Your task to perform on an android device: Go to calendar. Show me events next week Image 0: 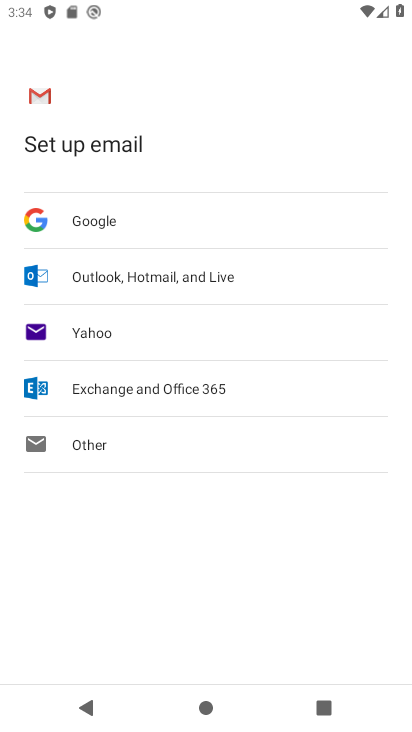
Step 0: press home button
Your task to perform on an android device: Go to calendar. Show me events next week Image 1: 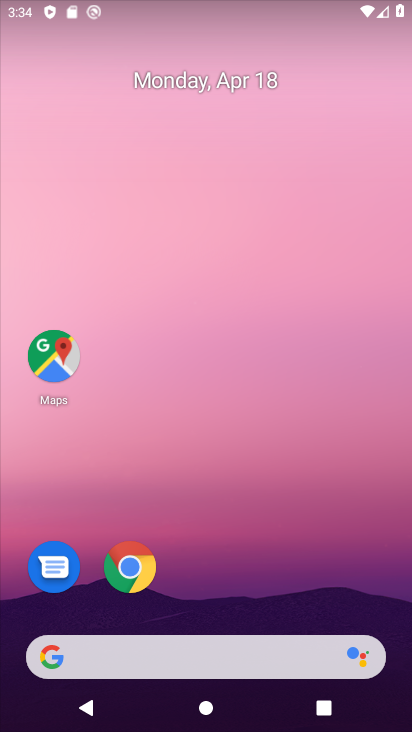
Step 1: drag from (200, 569) to (236, 75)
Your task to perform on an android device: Go to calendar. Show me events next week Image 2: 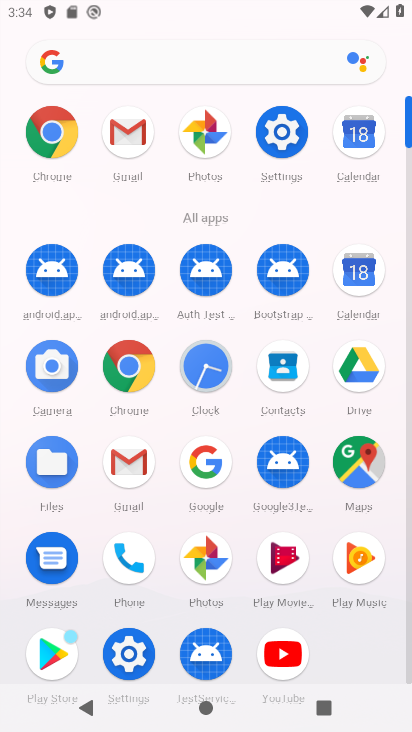
Step 2: click (353, 285)
Your task to perform on an android device: Go to calendar. Show me events next week Image 3: 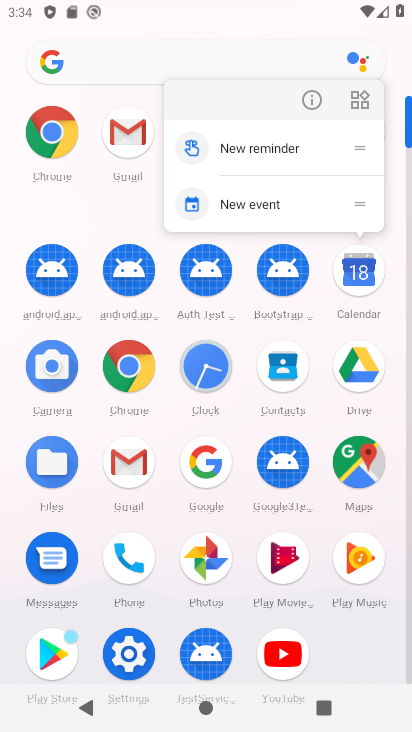
Step 3: click (360, 278)
Your task to perform on an android device: Go to calendar. Show me events next week Image 4: 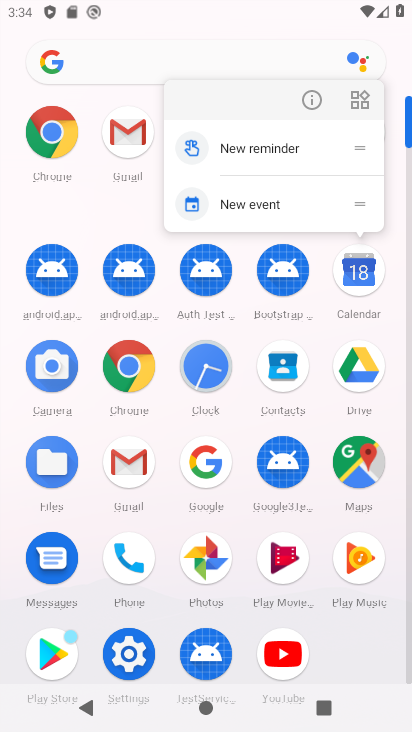
Step 4: click (357, 292)
Your task to perform on an android device: Go to calendar. Show me events next week Image 5: 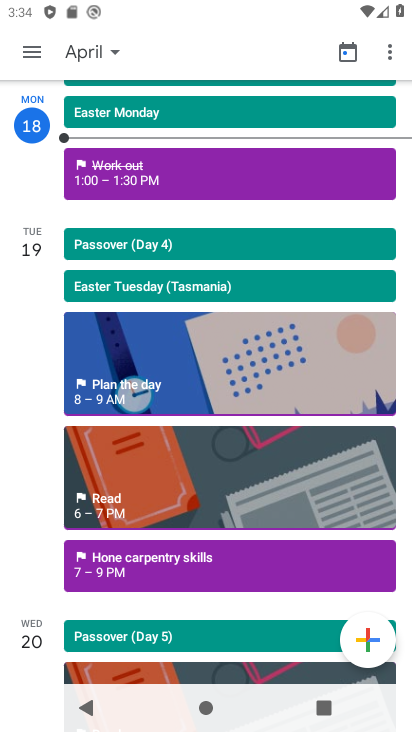
Step 5: click (81, 59)
Your task to perform on an android device: Go to calendar. Show me events next week Image 6: 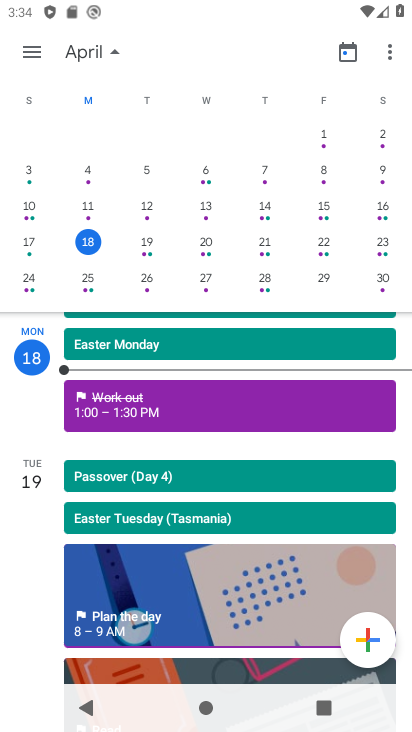
Step 6: click (20, 275)
Your task to perform on an android device: Go to calendar. Show me events next week Image 7: 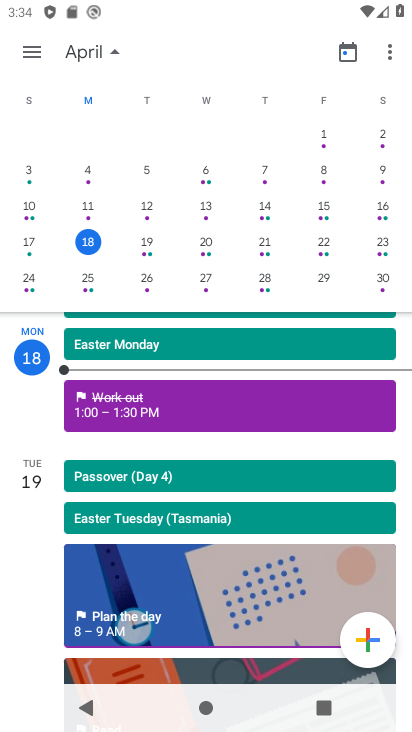
Step 7: click (28, 285)
Your task to perform on an android device: Go to calendar. Show me events next week Image 8: 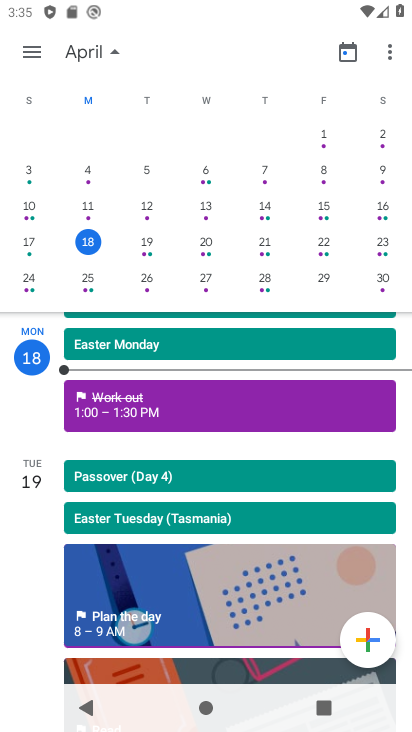
Step 8: click (90, 282)
Your task to perform on an android device: Go to calendar. Show me events next week Image 9: 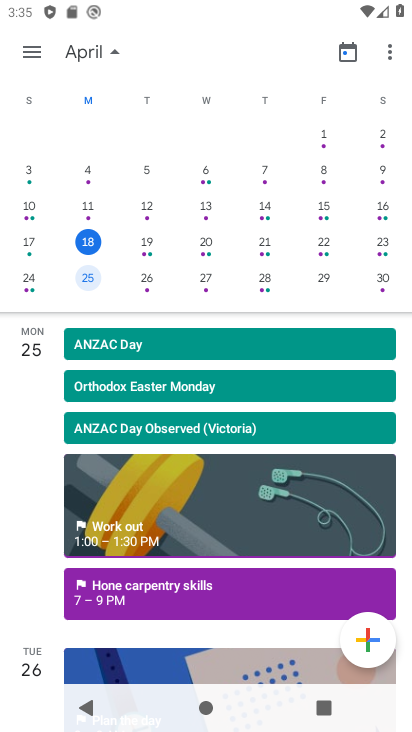
Step 9: click (141, 279)
Your task to perform on an android device: Go to calendar. Show me events next week Image 10: 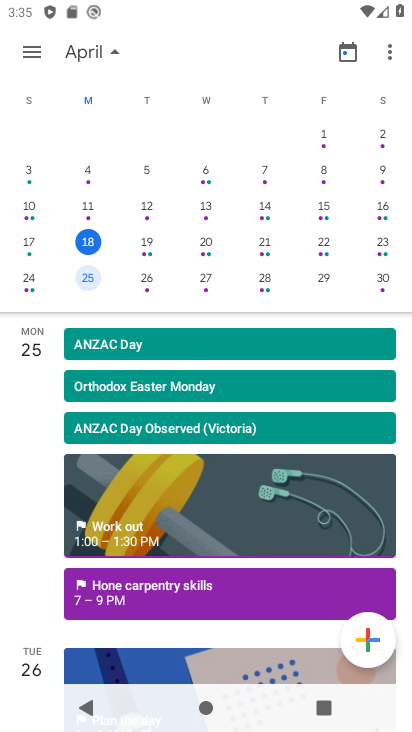
Step 10: click (209, 284)
Your task to perform on an android device: Go to calendar. Show me events next week Image 11: 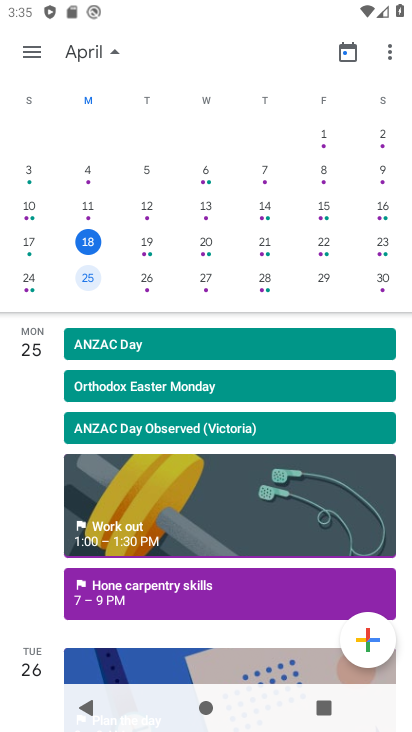
Step 11: task complete